Your task to perform on an android device: turn smart compose on in the gmail app Image 0: 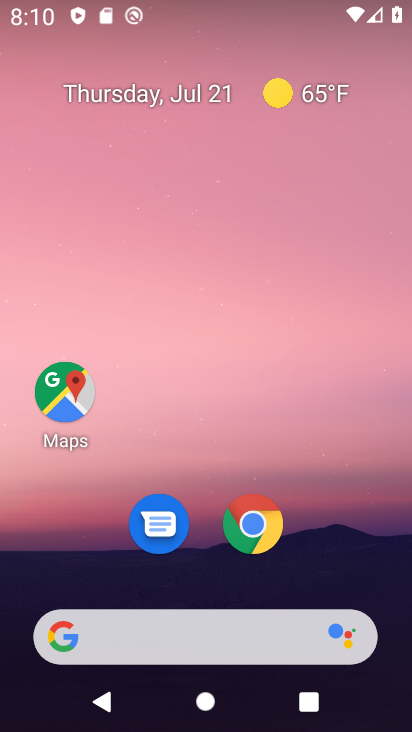
Step 0: drag from (208, 648) to (232, 288)
Your task to perform on an android device: turn smart compose on in the gmail app Image 1: 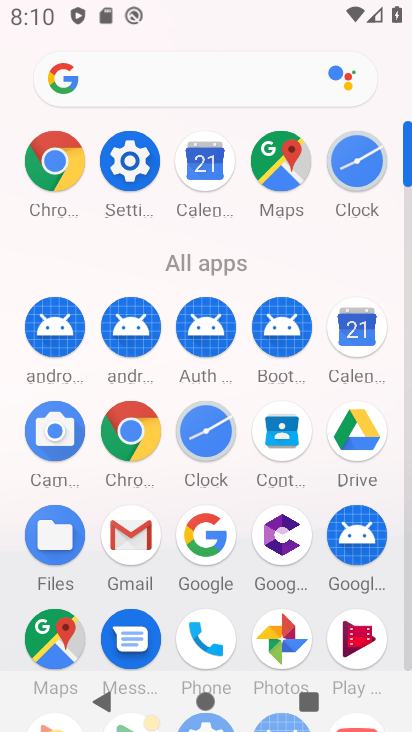
Step 1: click (137, 528)
Your task to perform on an android device: turn smart compose on in the gmail app Image 2: 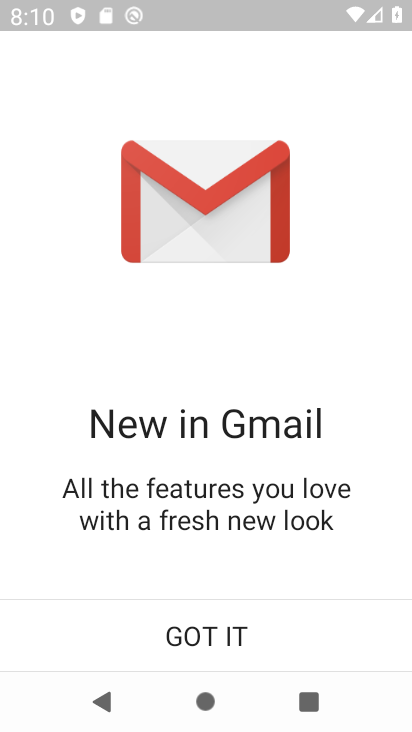
Step 2: click (234, 648)
Your task to perform on an android device: turn smart compose on in the gmail app Image 3: 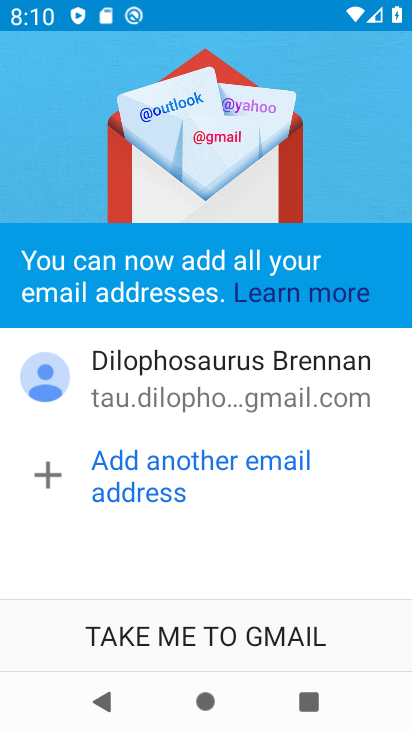
Step 3: click (184, 622)
Your task to perform on an android device: turn smart compose on in the gmail app Image 4: 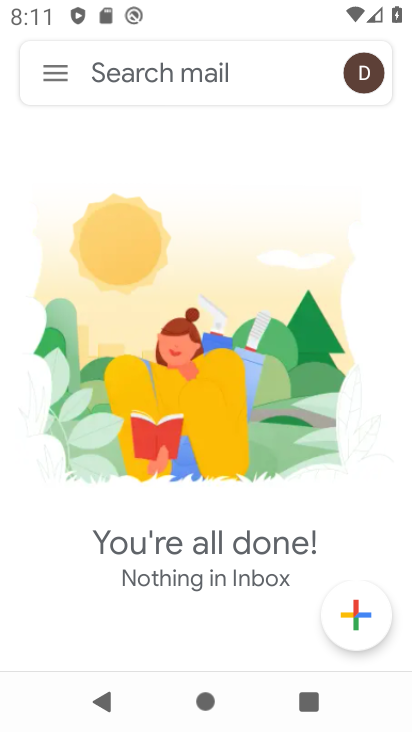
Step 4: click (56, 81)
Your task to perform on an android device: turn smart compose on in the gmail app Image 5: 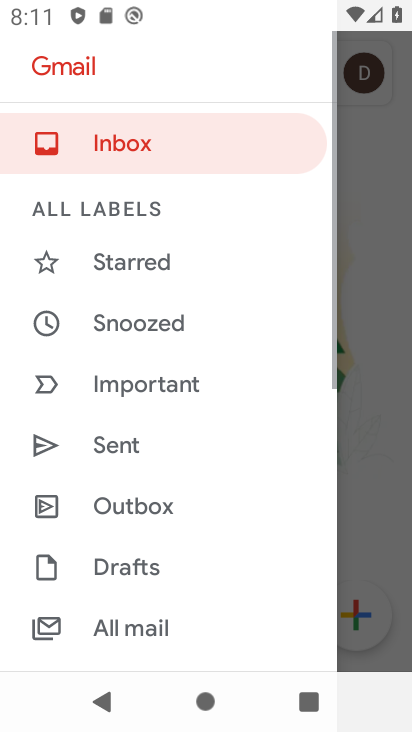
Step 5: drag from (122, 550) to (106, 56)
Your task to perform on an android device: turn smart compose on in the gmail app Image 6: 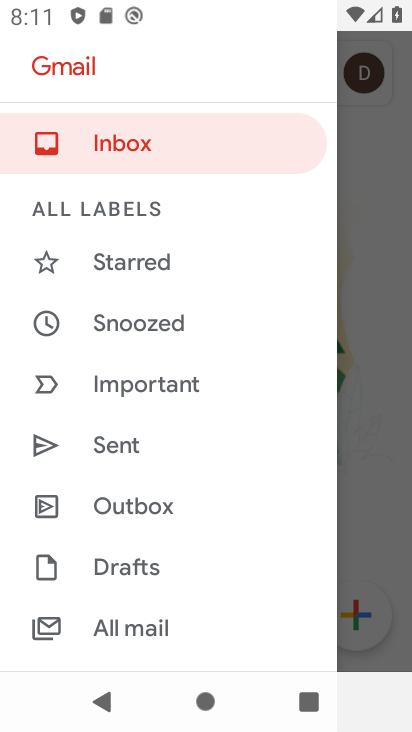
Step 6: drag from (172, 623) to (199, 62)
Your task to perform on an android device: turn smart compose on in the gmail app Image 7: 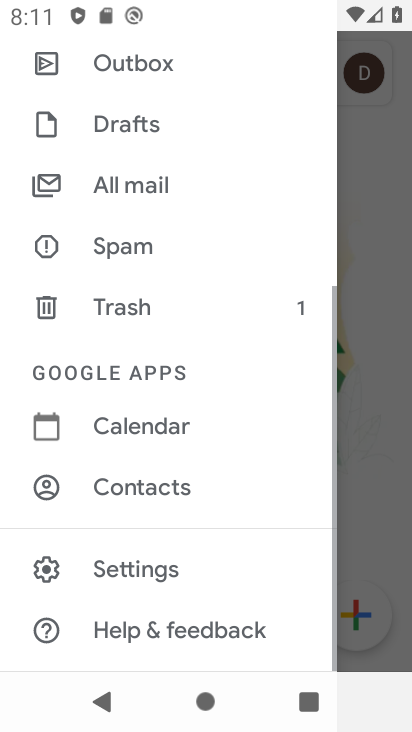
Step 7: click (143, 566)
Your task to perform on an android device: turn smart compose on in the gmail app Image 8: 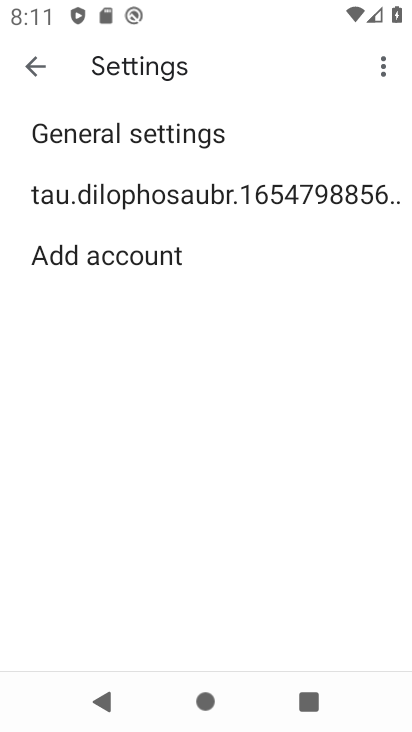
Step 8: click (232, 185)
Your task to perform on an android device: turn smart compose on in the gmail app Image 9: 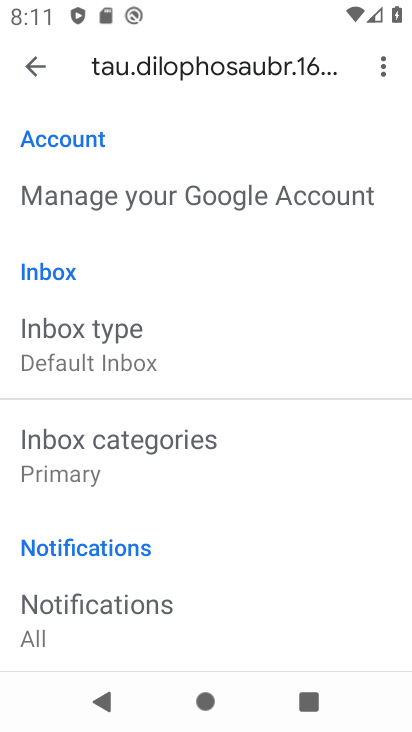
Step 9: task complete